Your task to perform on an android device: What is the news today? Image 0: 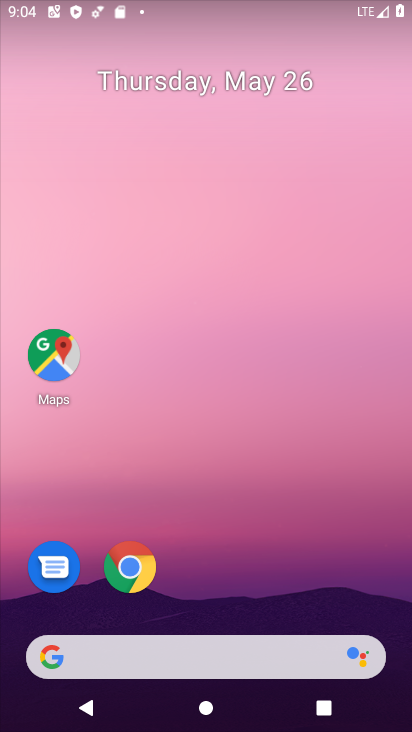
Step 0: click (175, 670)
Your task to perform on an android device: What is the news today? Image 1: 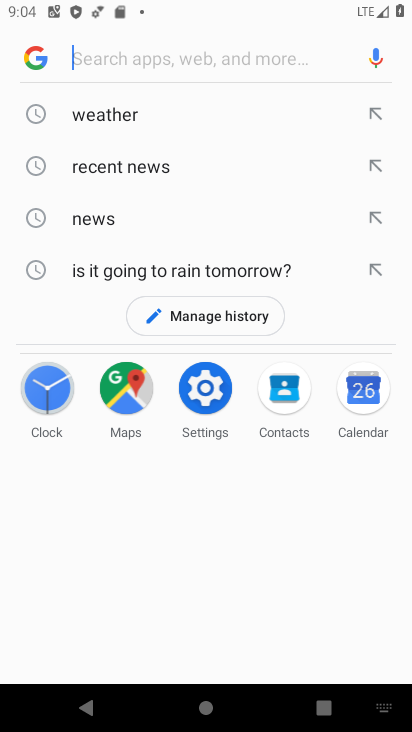
Step 1: type "What is the news today?"
Your task to perform on an android device: What is the news today? Image 2: 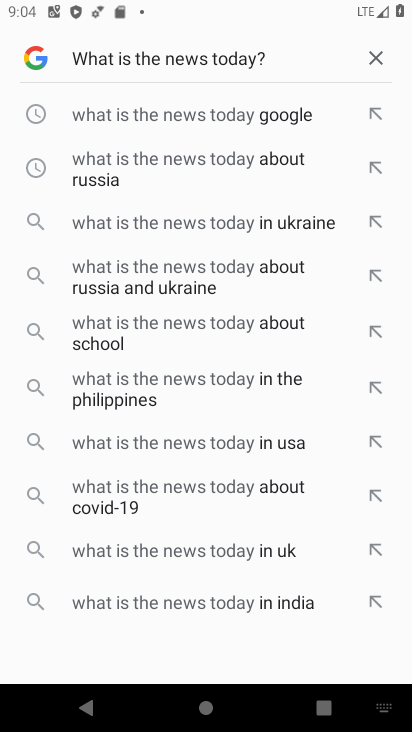
Step 2: click (296, 117)
Your task to perform on an android device: What is the news today? Image 3: 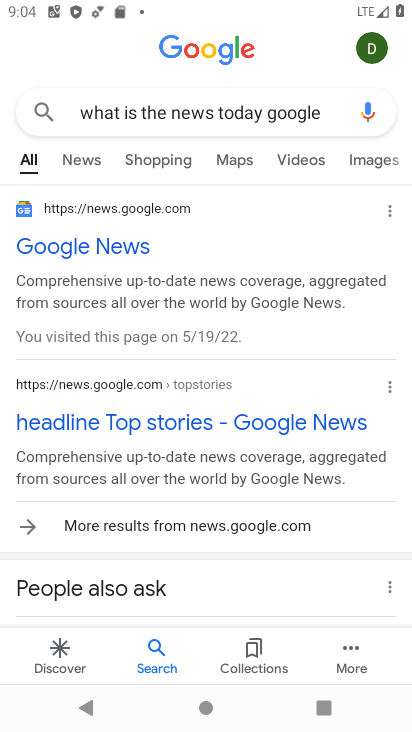
Step 3: task complete